Your task to perform on an android device: find photos in the google photos app Image 0: 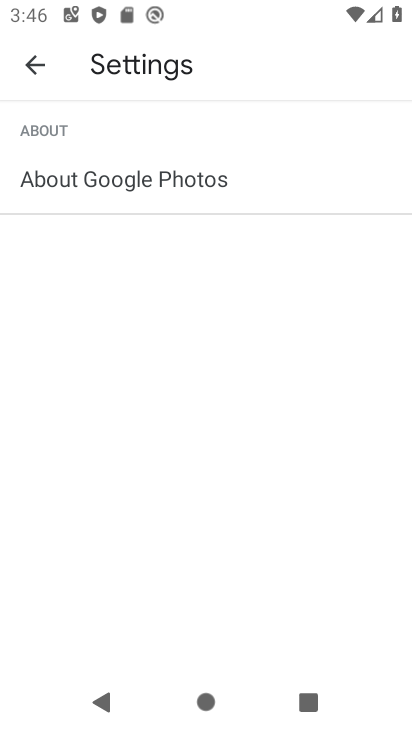
Step 0: press home button
Your task to perform on an android device: find photos in the google photos app Image 1: 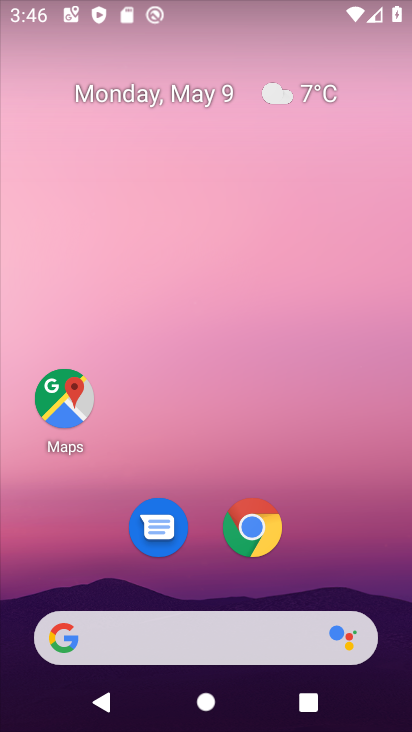
Step 1: drag from (171, 171) to (186, 12)
Your task to perform on an android device: find photos in the google photos app Image 2: 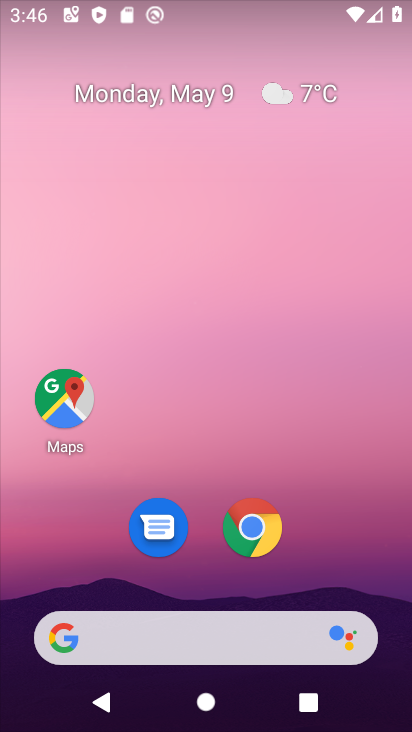
Step 2: drag from (207, 570) to (222, 117)
Your task to perform on an android device: find photos in the google photos app Image 3: 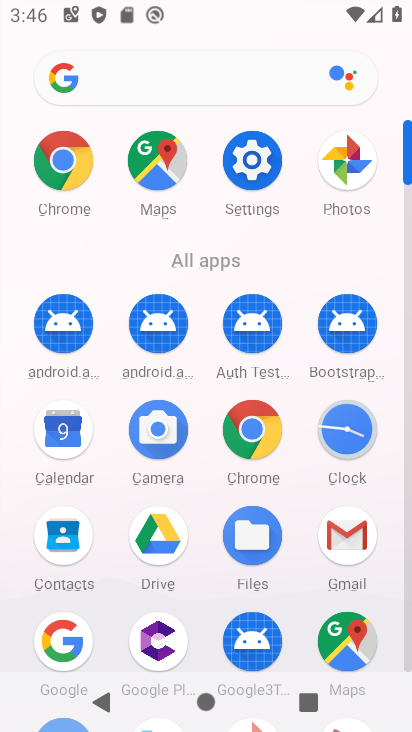
Step 3: click (340, 170)
Your task to perform on an android device: find photos in the google photos app Image 4: 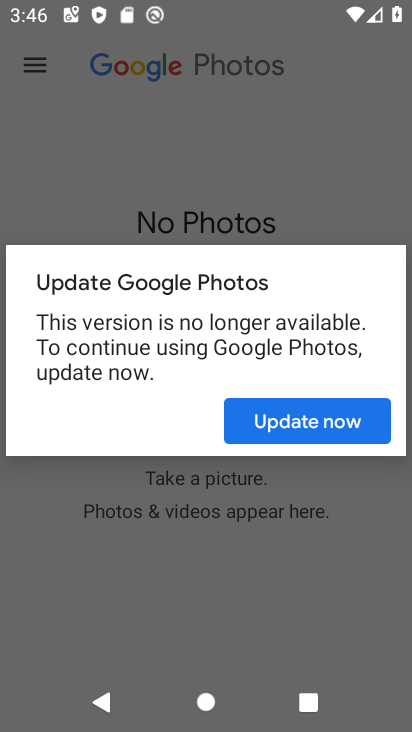
Step 4: click (297, 428)
Your task to perform on an android device: find photos in the google photos app Image 5: 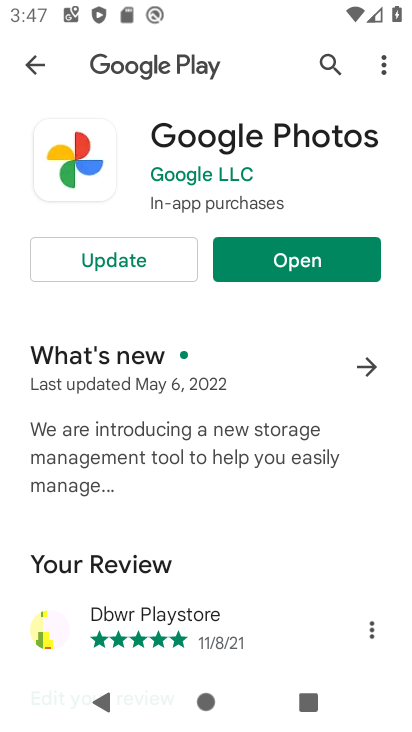
Step 5: click (260, 250)
Your task to perform on an android device: find photos in the google photos app Image 6: 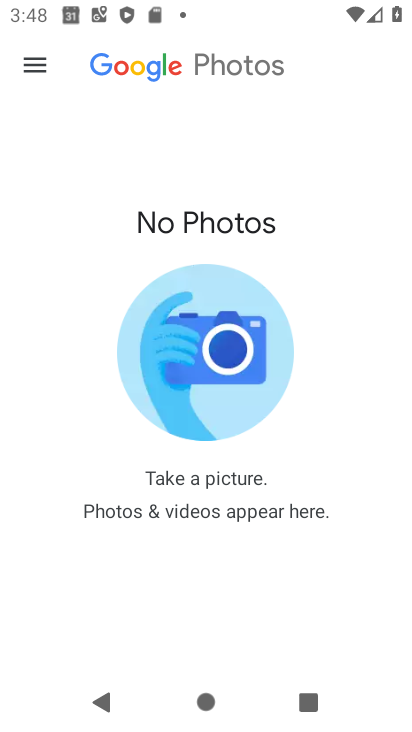
Step 6: task complete